Your task to perform on an android device: Go to calendar. Show me events next week Image 0: 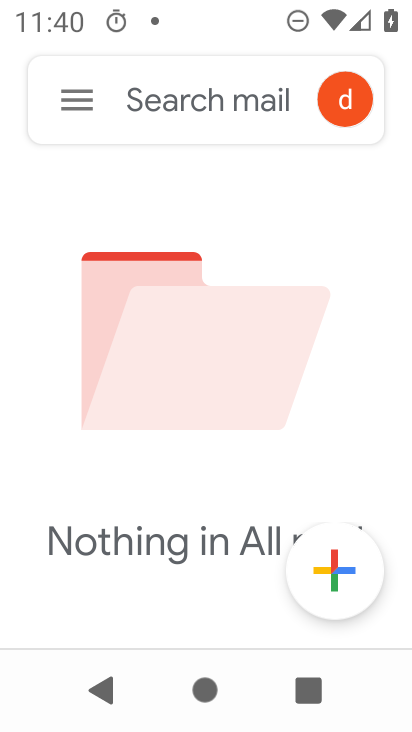
Step 0: press back button
Your task to perform on an android device: Go to calendar. Show me events next week Image 1: 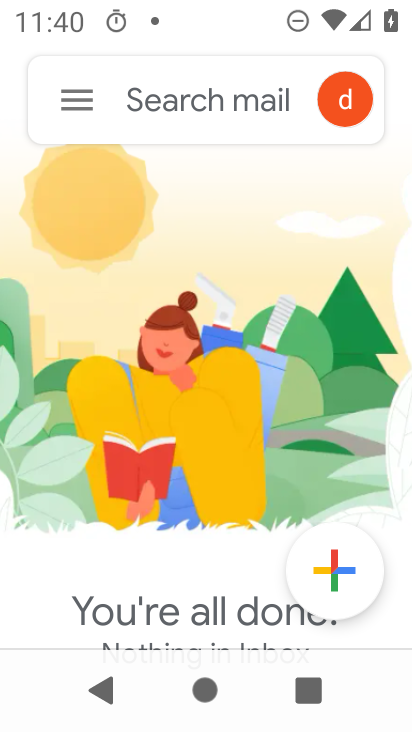
Step 1: press back button
Your task to perform on an android device: Go to calendar. Show me events next week Image 2: 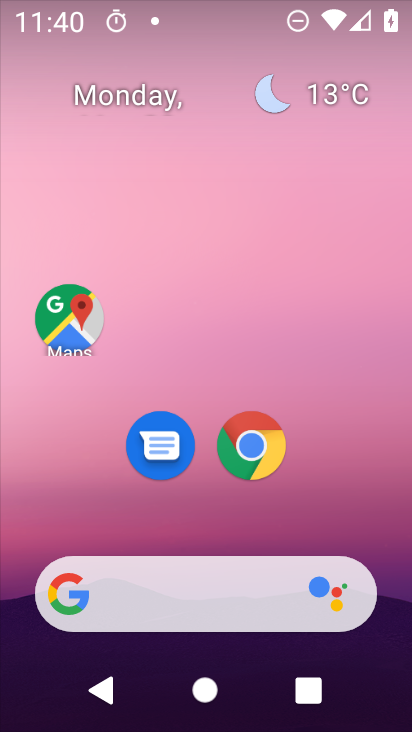
Step 2: drag from (217, 525) to (217, 48)
Your task to perform on an android device: Go to calendar. Show me events next week Image 3: 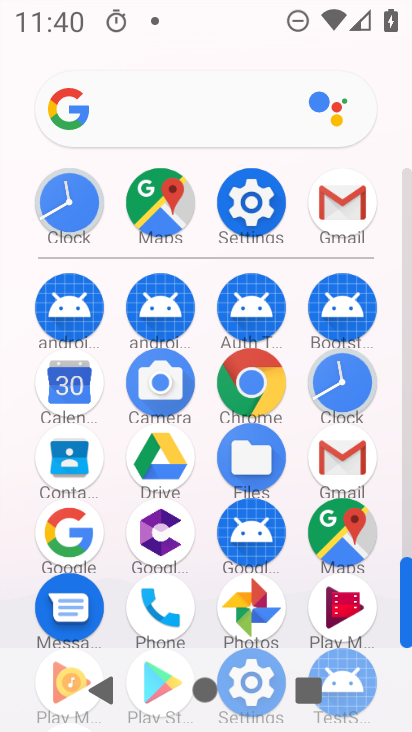
Step 3: click (57, 398)
Your task to perform on an android device: Go to calendar. Show me events next week Image 4: 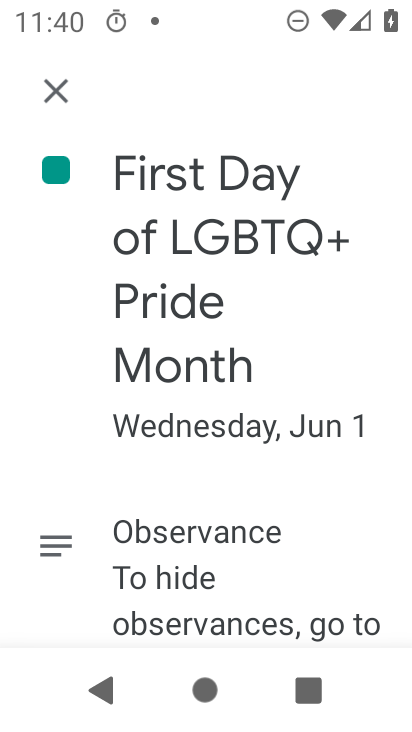
Step 4: click (53, 89)
Your task to perform on an android device: Go to calendar. Show me events next week Image 5: 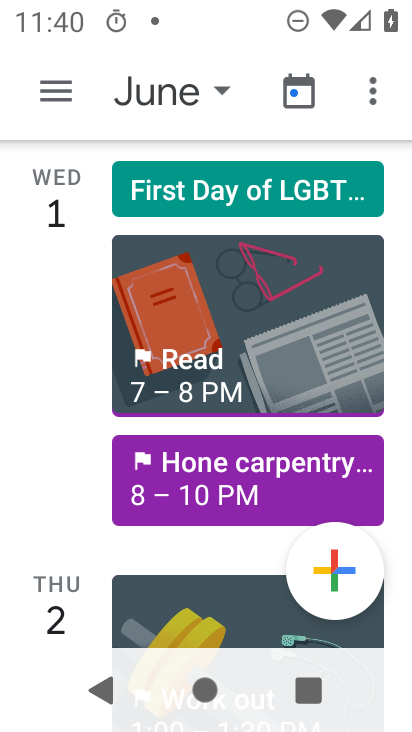
Step 5: click (184, 86)
Your task to perform on an android device: Go to calendar. Show me events next week Image 6: 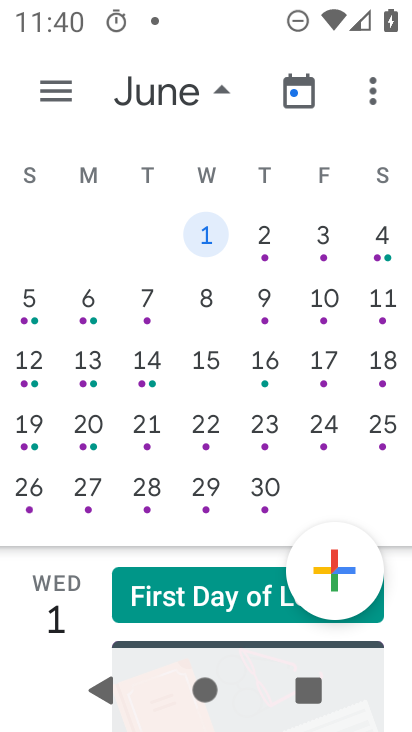
Step 6: click (89, 300)
Your task to perform on an android device: Go to calendar. Show me events next week Image 7: 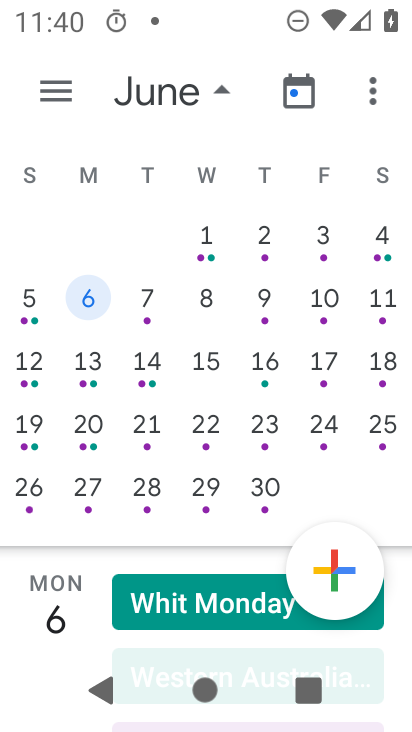
Step 7: drag from (141, 601) to (205, 131)
Your task to perform on an android device: Go to calendar. Show me events next week Image 8: 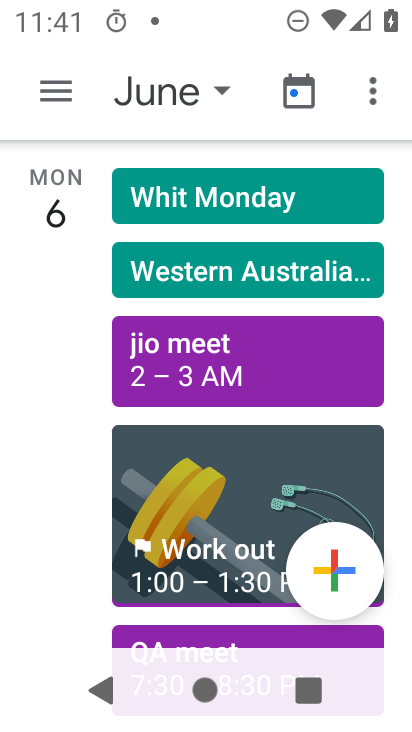
Step 8: click (185, 186)
Your task to perform on an android device: Go to calendar. Show me events next week Image 9: 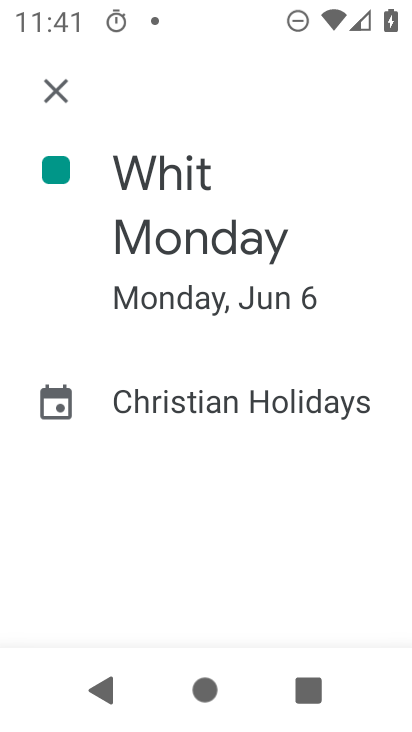
Step 9: task complete